Your task to perform on an android device: check data usage Image 0: 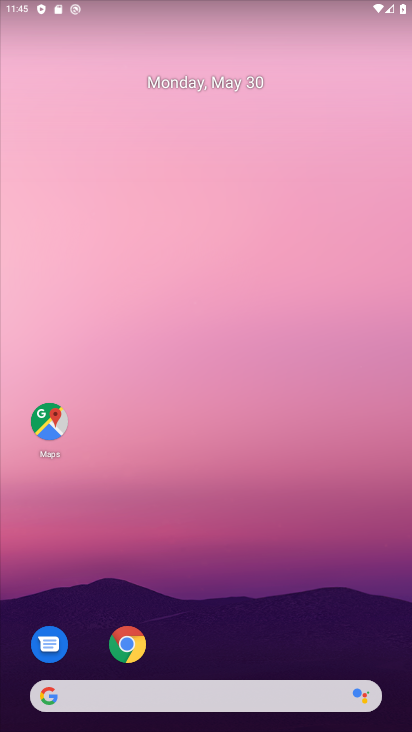
Step 0: click (397, 215)
Your task to perform on an android device: check data usage Image 1: 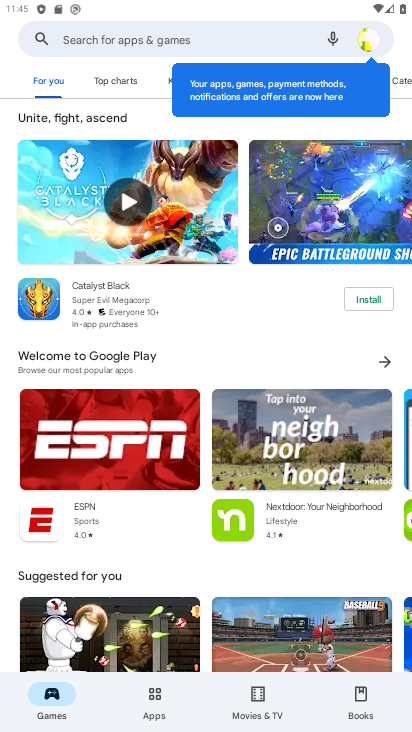
Step 1: press home button
Your task to perform on an android device: check data usage Image 2: 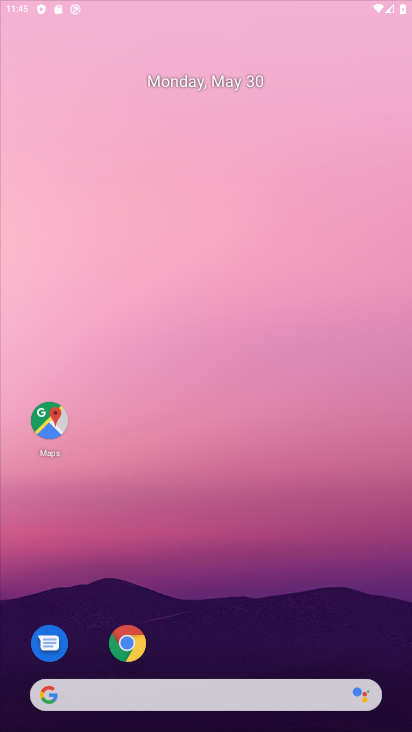
Step 2: drag from (204, 556) to (243, 23)
Your task to perform on an android device: check data usage Image 3: 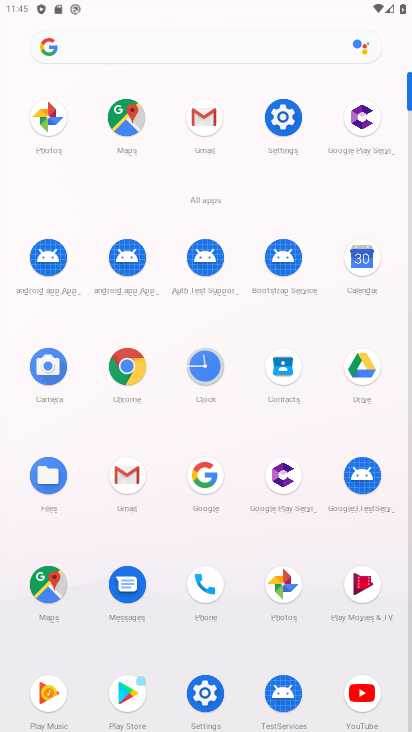
Step 3: click (279, 110)
Your task to perform on an android device: check data usage Image 4: 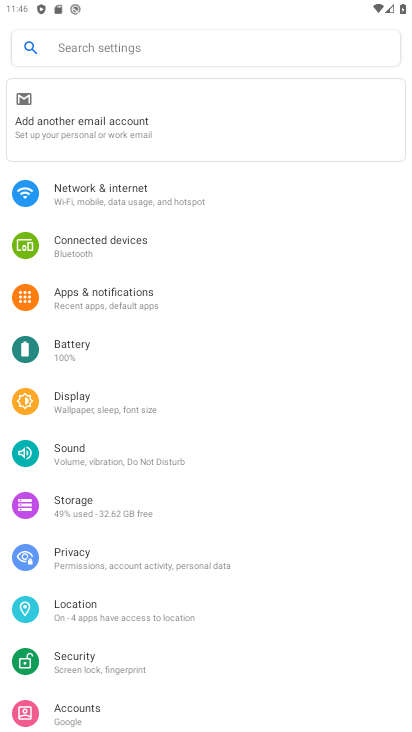
Step 4: click (113, 293)
Your task to perform on an android device: check data usage Image 5: 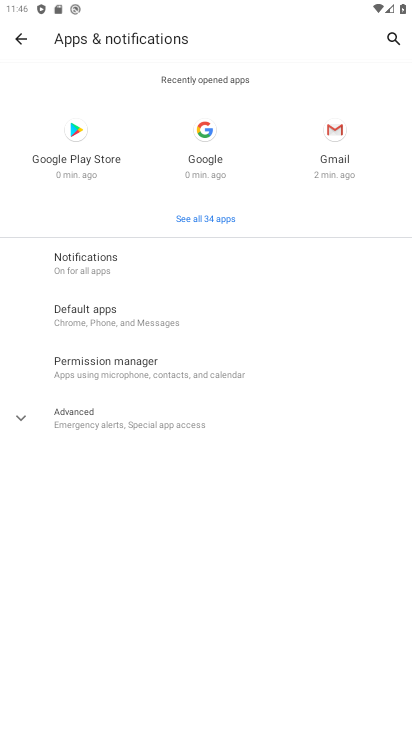
Step 5: click (16, 32)
Your task to perform on an android device: check data usage Image 6: 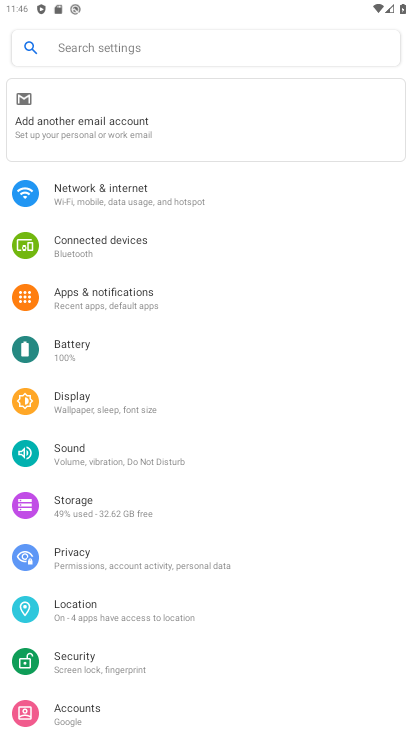
Step 6: click (131, 179)
Your task to perform on an android device: check data usage Image 7: 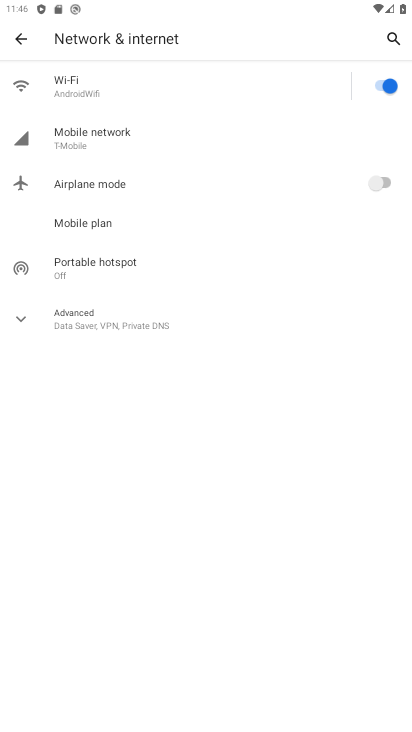
Step 7: click (137, 137)
Your task to perform on an android device: check data usage Image 8: 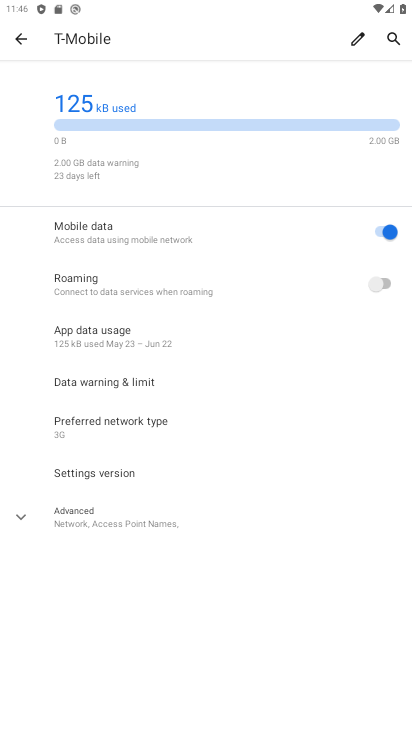
Step 8: task complete